Your task to perform on an android device: Open the stopwatch Image 0: 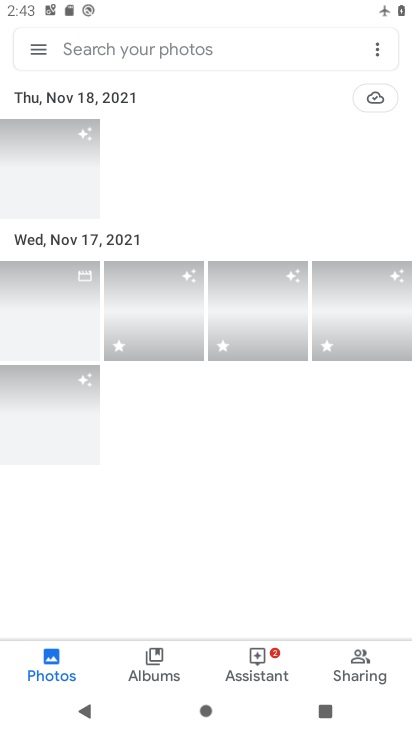
Step 0: click (325, 570)
Your task to perform on an android device: Open the stopwatch Image 1: 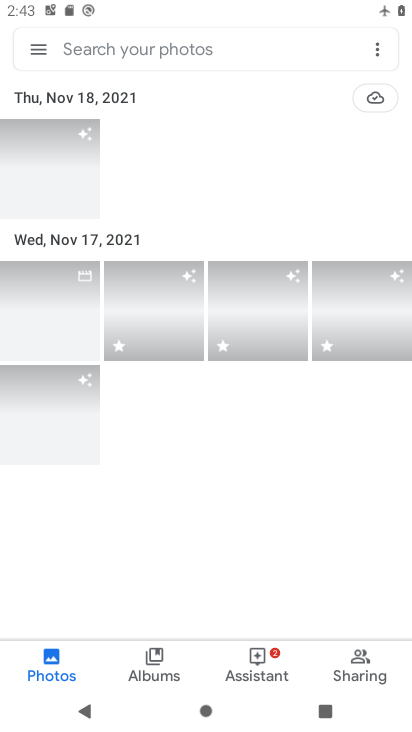
Step 1: press home button
Your task to perform on an android device: Open the stopwatch Image 2: 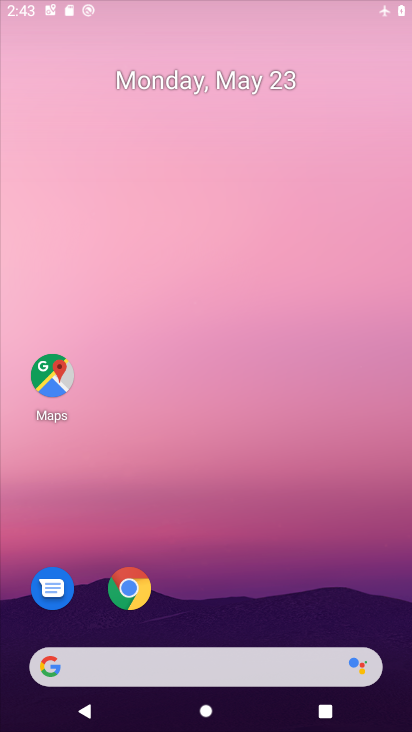
Step 2: drag from (202, 542) to (257, 155)
Your task to perform on an android device: Open the stopwatch Image 3: 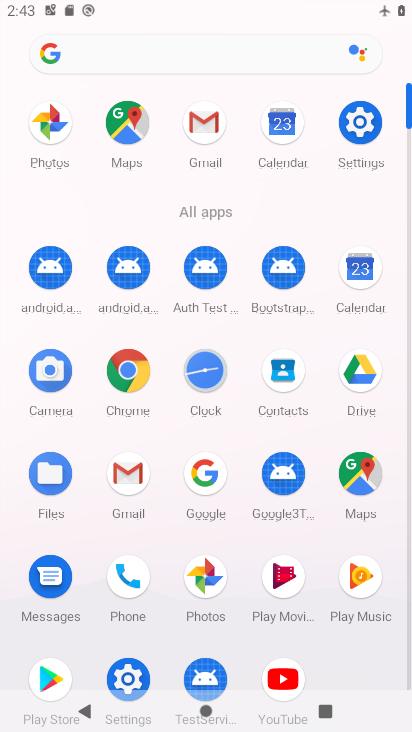
Step 3: click (196, 375)
Your task to perform on an android device: Open the stopwatch Image 4: 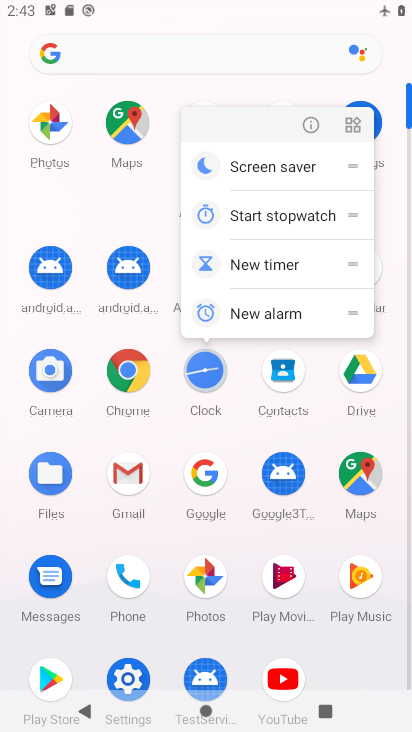
Step 4: click (306, 116)
Your task to perform on an android device: Open the stopwatch Image 5: 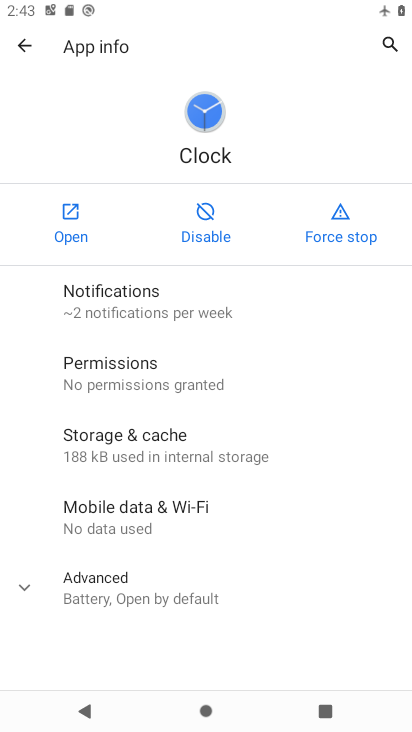
Step 5: click (54, 216)
Your task to perform on an android device: Open the stopwatch Image 6: 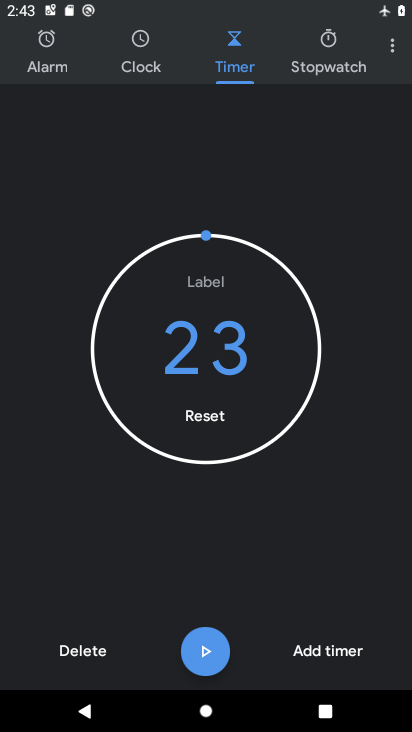
Step 6: click (314, 39)
Your task to perform on an android device: Open the stopwatch Image 7: 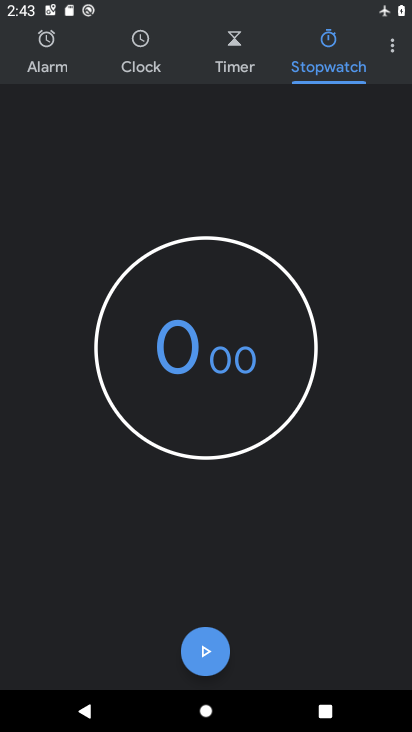
Step 7: click (197, 649)
Your task to perform on an android device: Open the stopwatch Image 8: 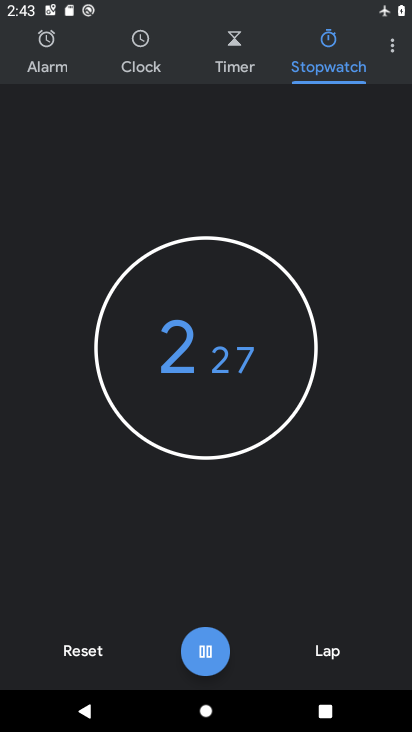
Step 8: task complete